Your task to perform on an android device: Open Chrome and go to settings Image 0: 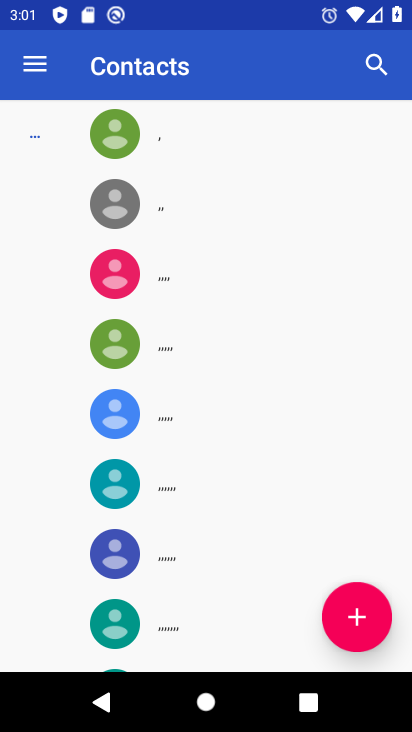
Step 0: press back button
Your task to perform on an android device: Open Chrome and go to settings Image 1: 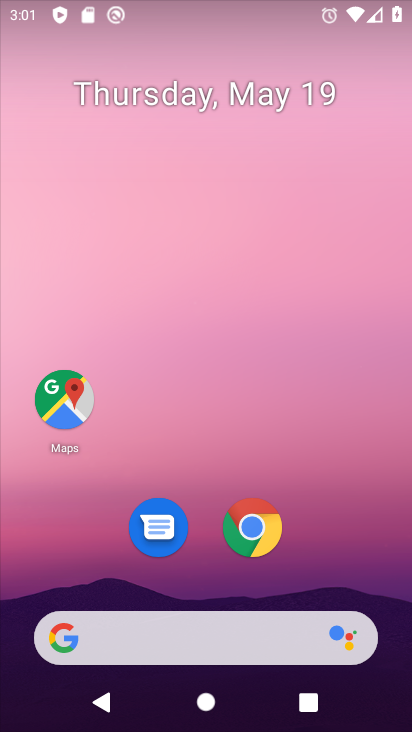
Step 1: click (257, 519)
Your task to perform on an android device: Open Chrome and go to settings Image 2: 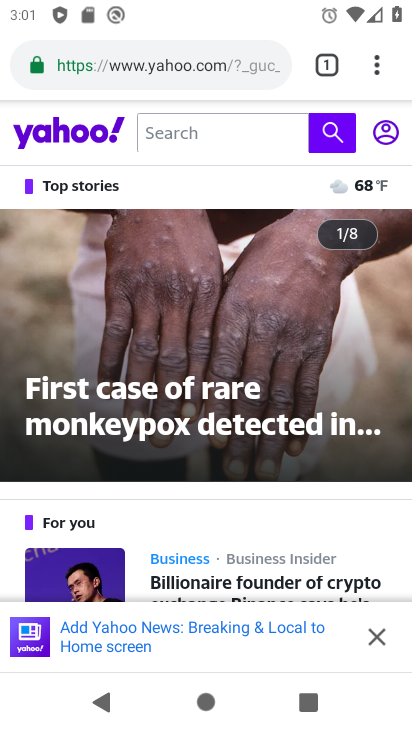
Step 2: task complete